Your task to perform on an android device: Turn on the flashlight Image 0: 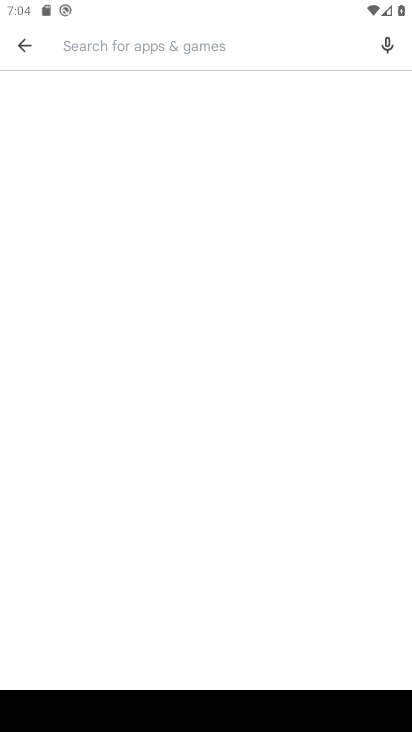
Step 0: press home button
Your task to perform on an android device: Turn on the flashlight Image 1: 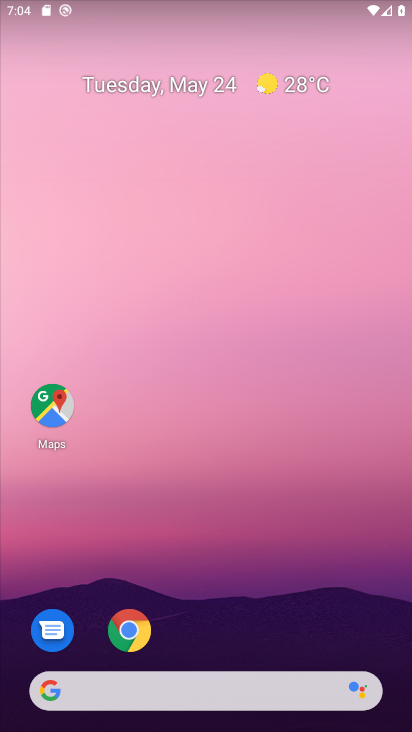
Step 1: drag from (289, 705) to (241, 240)
Your task to perform on an android device: Turn on the flashlight Image 2: 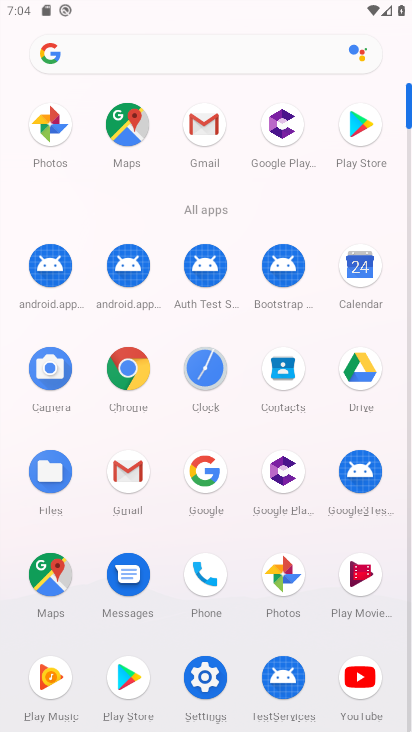
Step 2: click (210, 661)
Your task to perform on an android device: Turn on the flashlight Image 3: 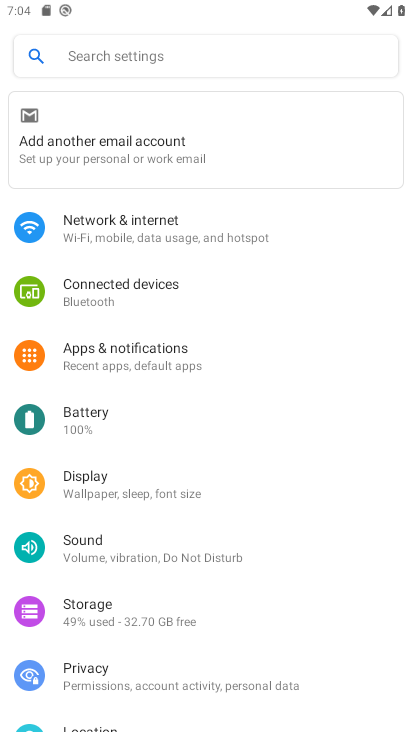
Step 3: click (109, 47)
Your task to perform on an android device: Turn on the flashlight Image 4: 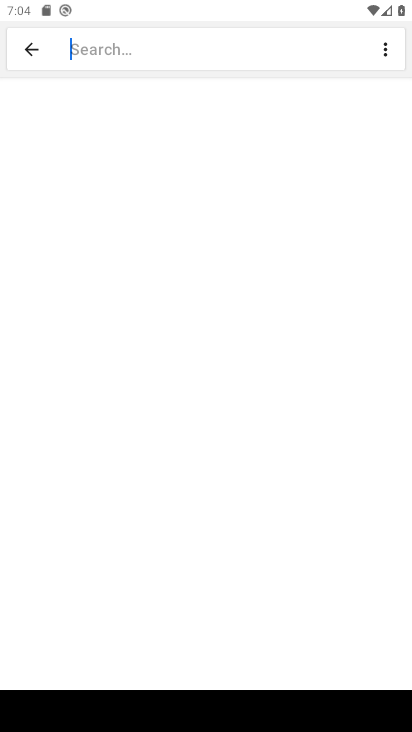
Step 4: drag from (386, 701) to (390, 577)
Your task to perform on an android device: Turn on the flashlight Image 5: 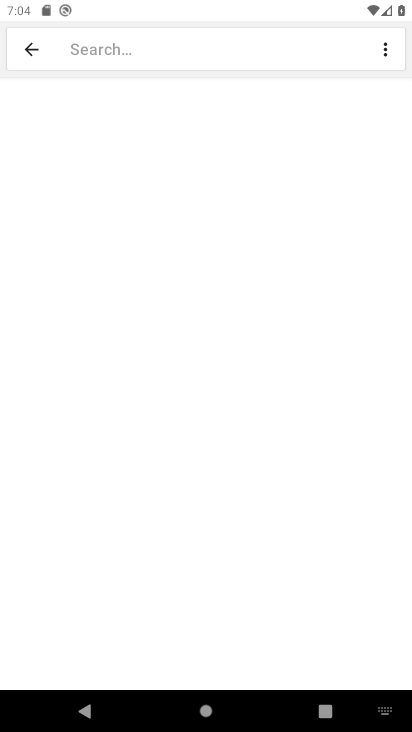
Step 5: click (380, 704)
Your task to perform on an android device: Turn on the flashlight Image 6: 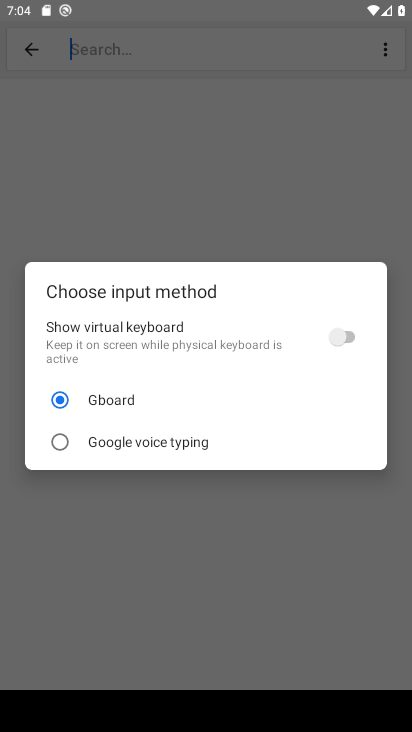
Step 6: click (341, 344)
Your task to perform on an android device: Turn on the flashlight Image 7: 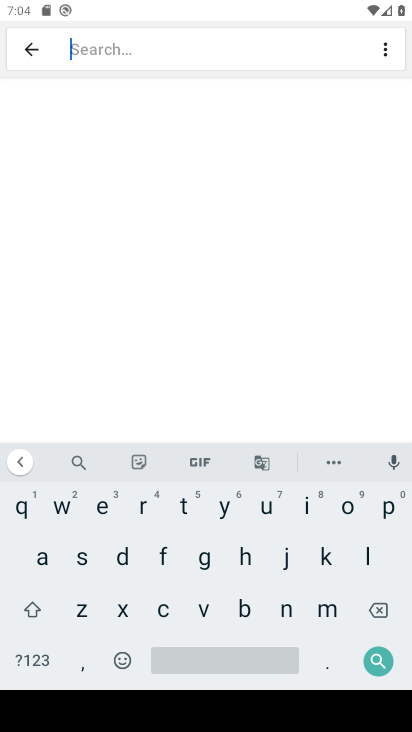
Step 7: click (156, 550)
Your task to perform on an android device: Turn on the flashlight Image 8: 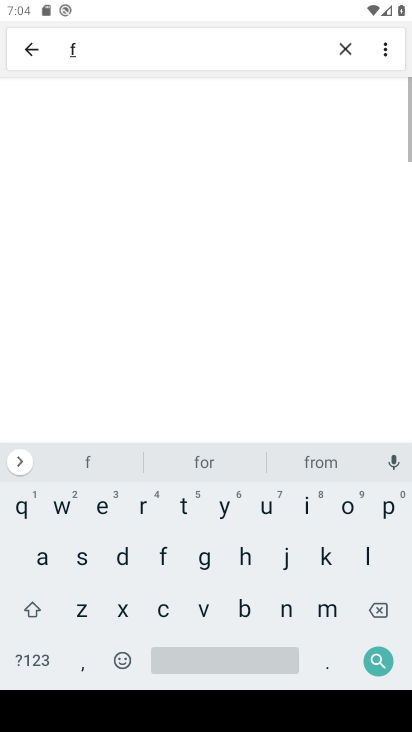
Step 8: click (374, 560)
Your task to perform on an android device: Turn on the flashlight Image 9: 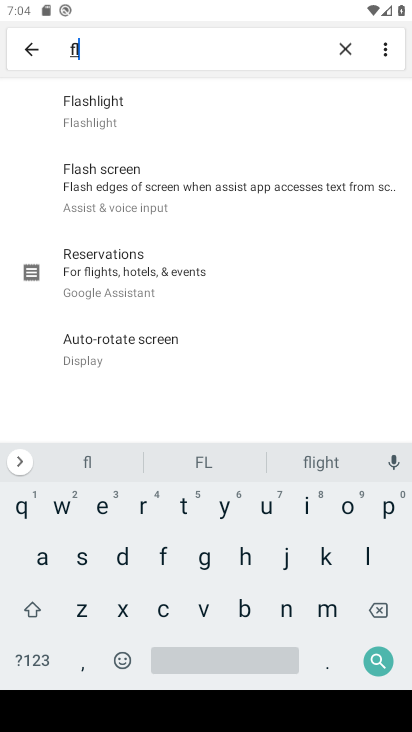
Step 9: click (139, 128)
Your task to perform on an android device: Turn on the flashlight Image 10: 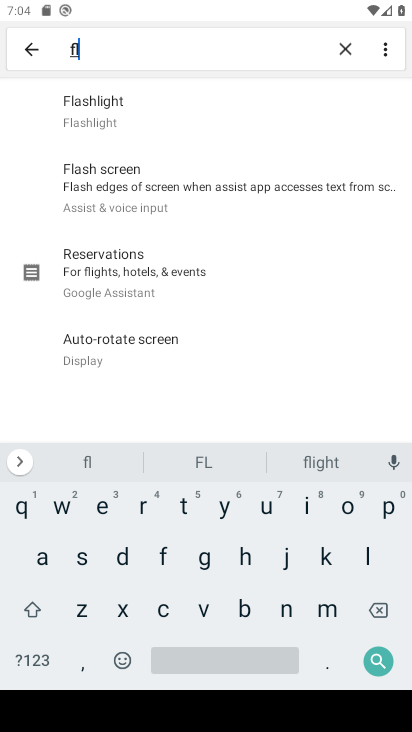
Step 10: click (139, 128)
Your task to perform on an android device: Turn on the flashlight Image 11: 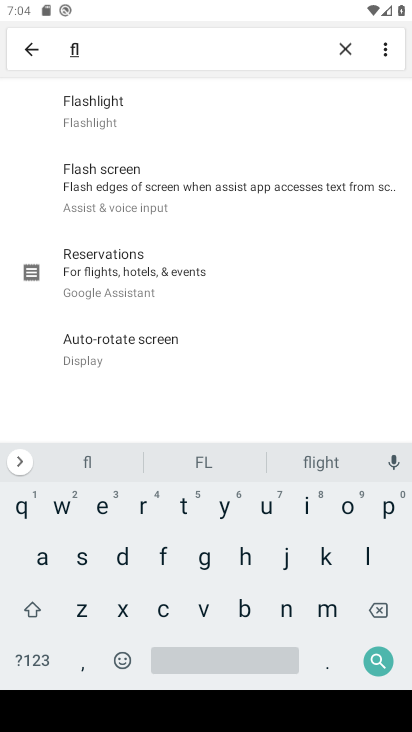
Step 11: task complete